Your task to perform on an android device: open app "Pinterest" Image 0: 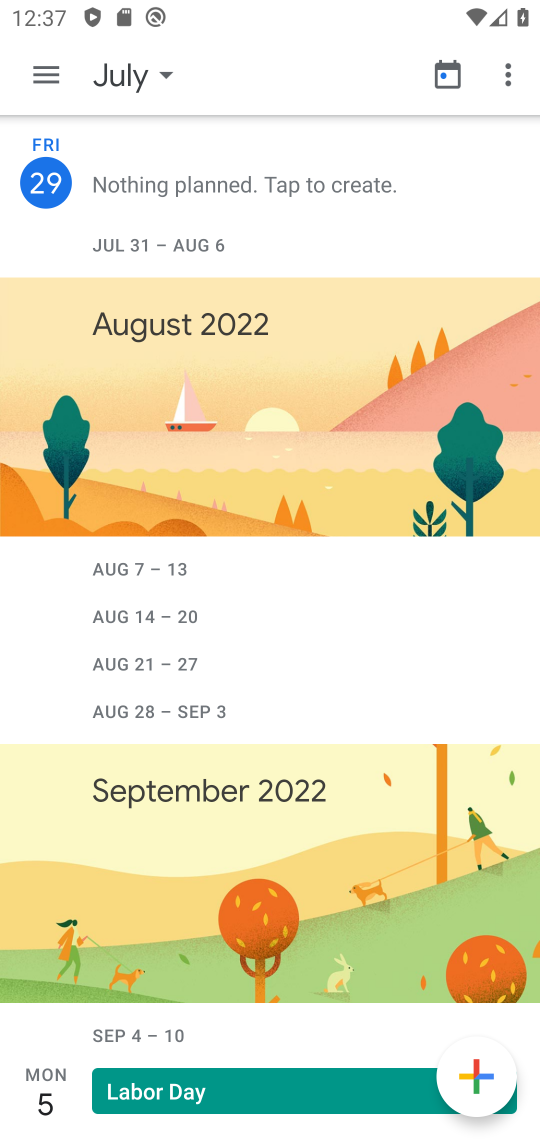
Step 0: press home button
Your task to perform on an android device: open app "Pinterest" Image 1: 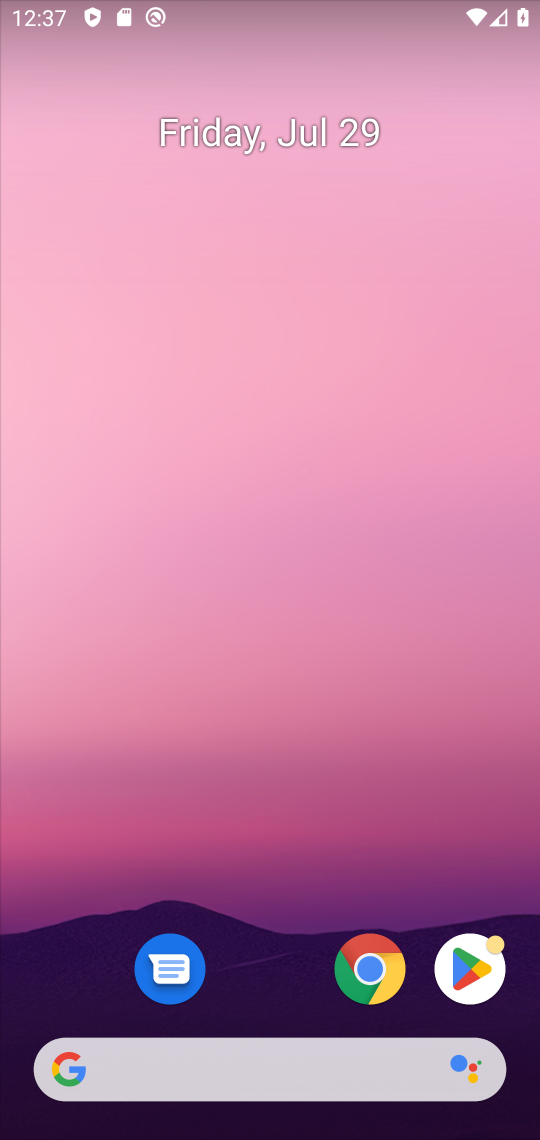
Step 1: click (474, 961)
Your task to perform on an android device: open app "Pinterest" Image 2: 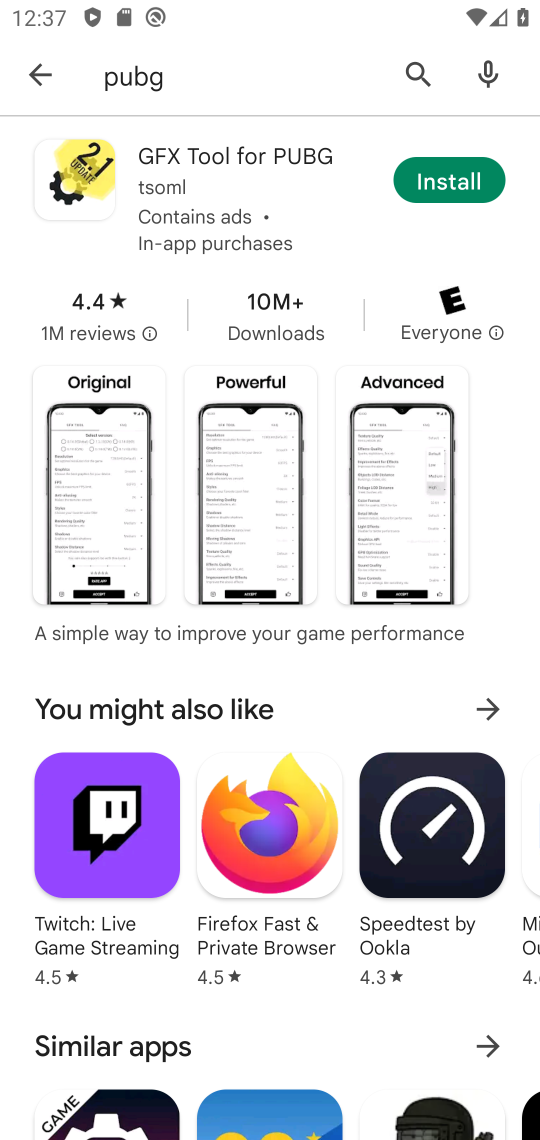
Step 2: click (410, 71)
Your task to perform on an android device: open app "Pinterest" Image 3: 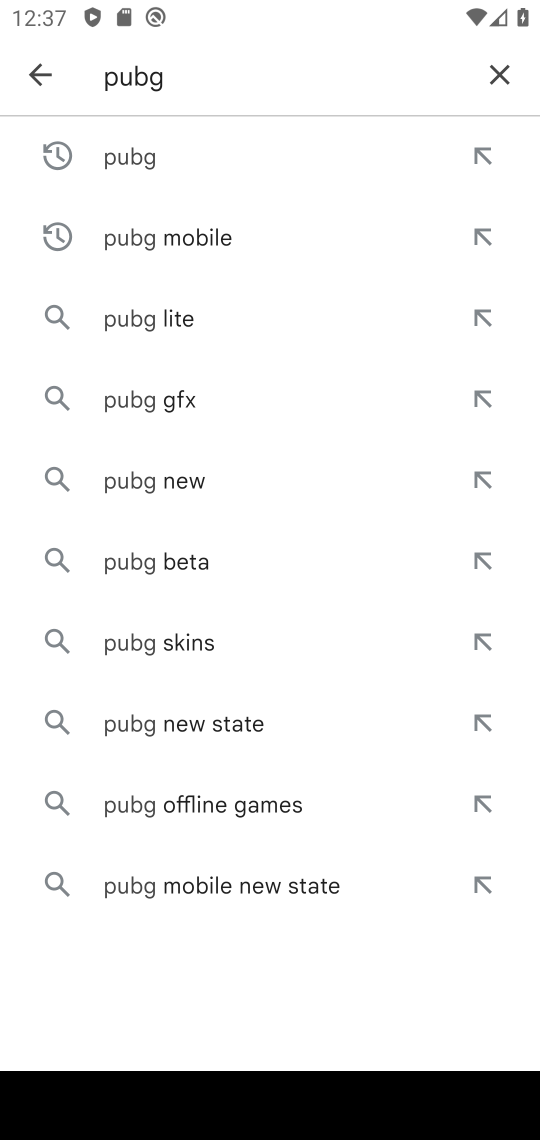
Step 3: click (499, 69)
Your task to perform on an android device: open app "Pinterest" Image 4: 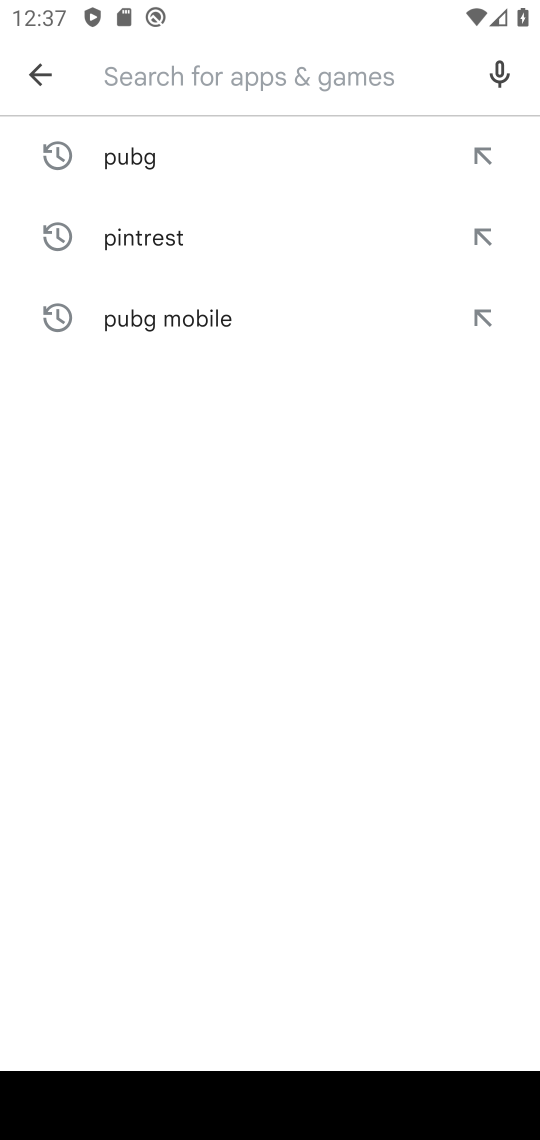
Step 4: click (160, 225)
Your task to perform on an android device: open app "Pinterest" Image 5: 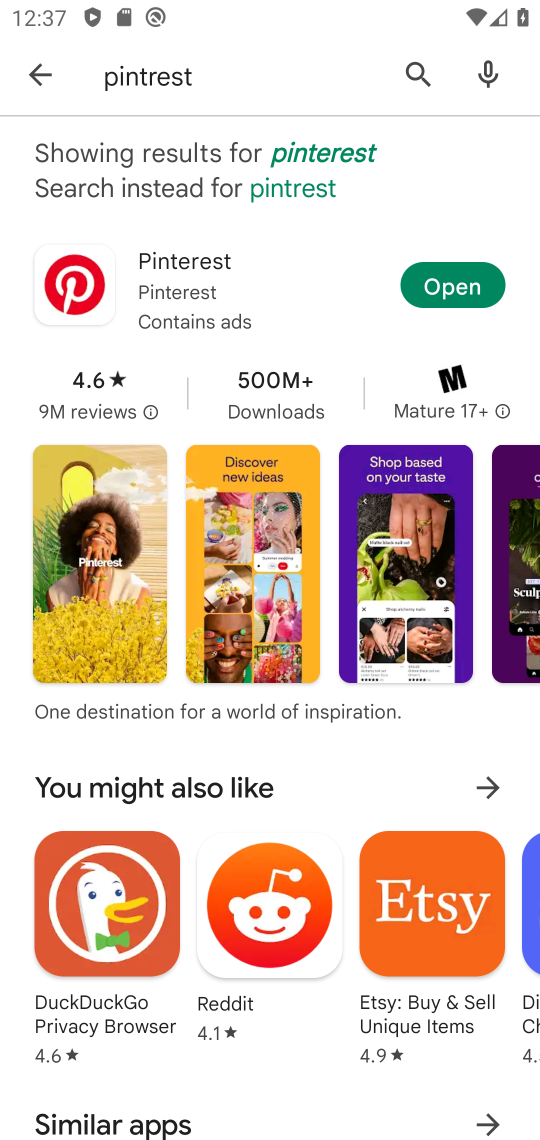
Step 5: click (444, 288)
Your task to perform on an android device: open app "Pinterest" Image 6: 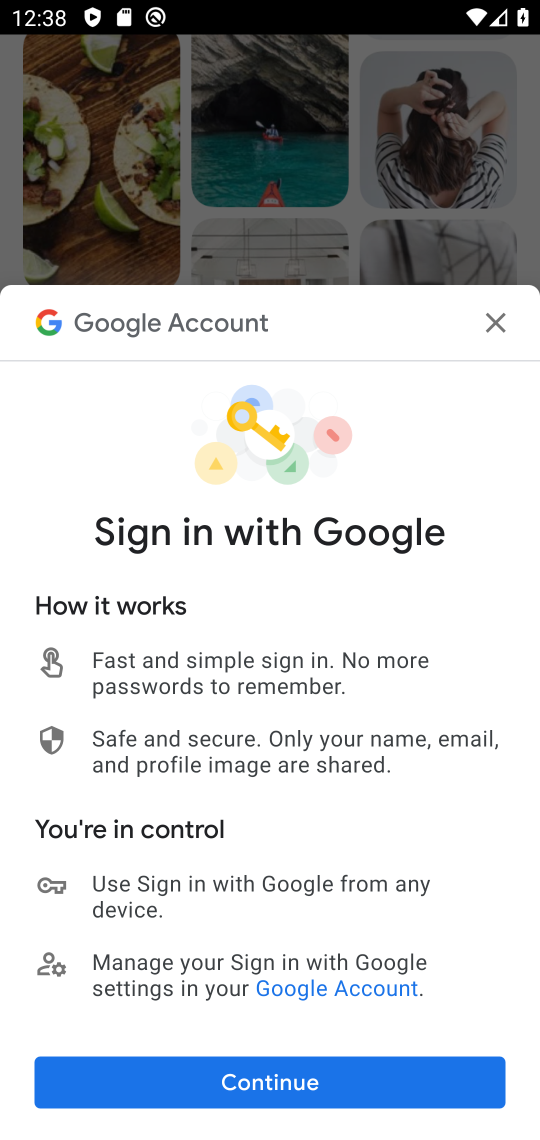
Step 6: click (309, 1081)
Your task to perform on an android device: open app "Pinterest" Image 7: 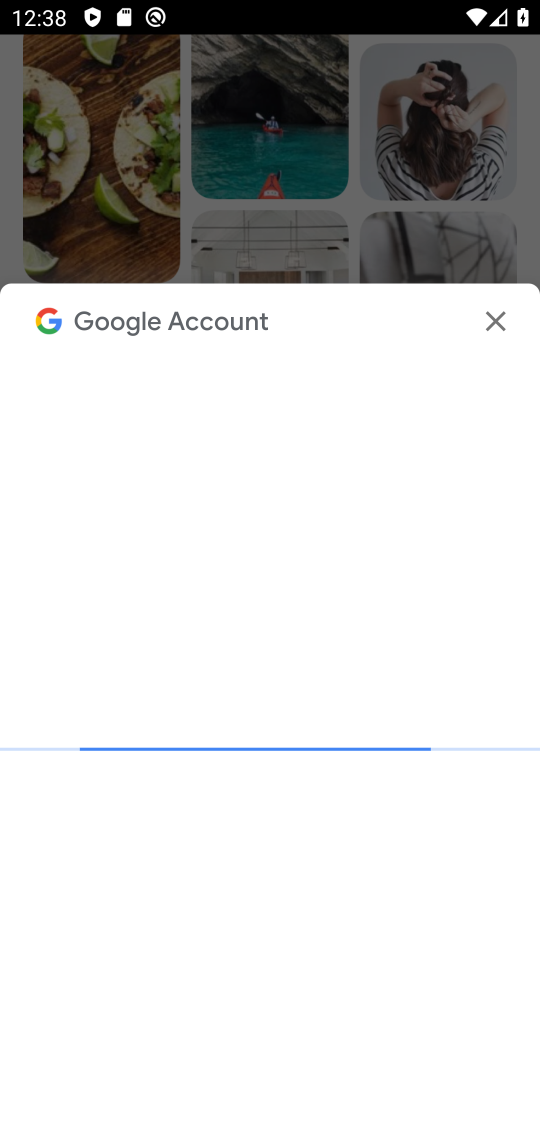
Step 7: click (490, 320)
Your task to perform on an android device: open app "Pinterest" Image 8: 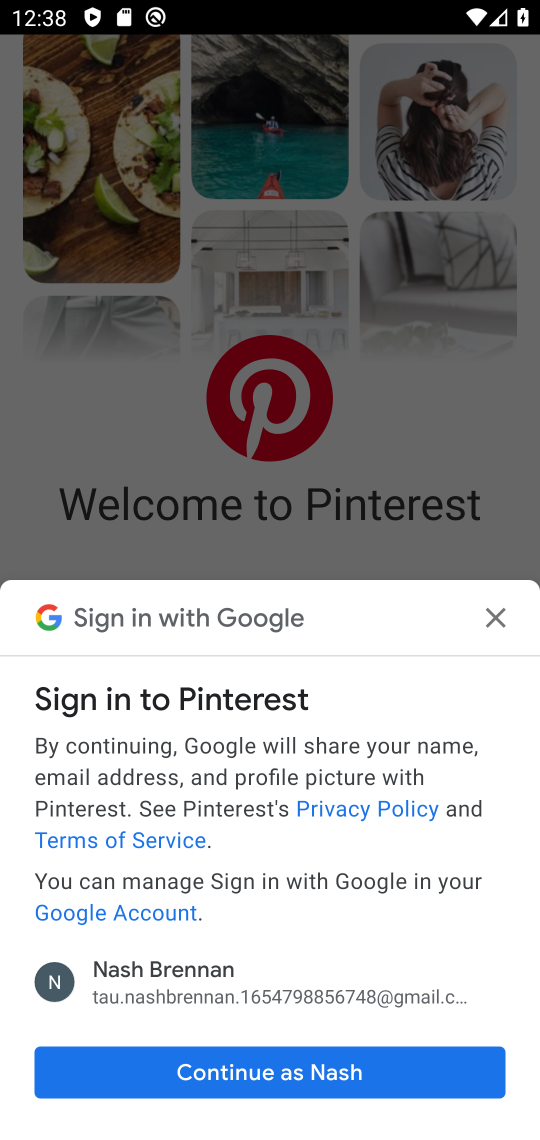
Step 8: click (284, 1074)
Your task to perform on an android device: open app "Pinterest" Image 9: 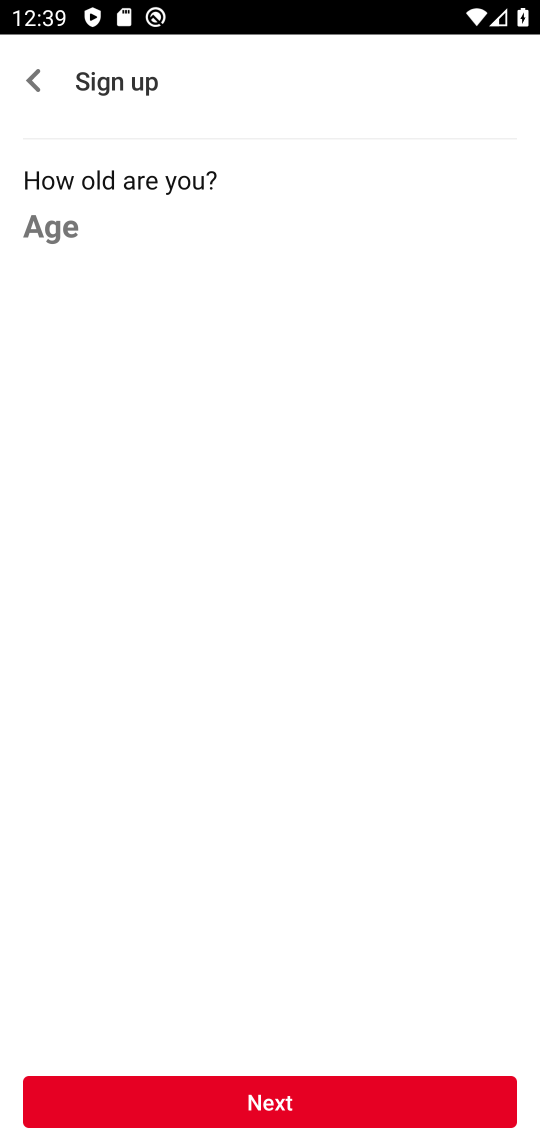
Step 9: task complete